Your task to perform on an android device: When is my next appointment? Image 0: 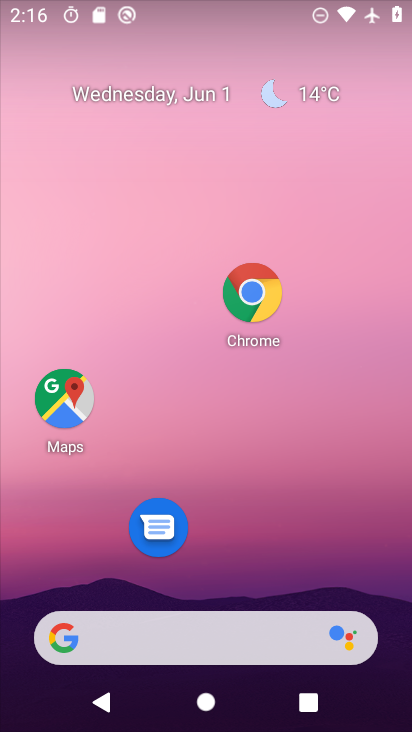
Step 0: drag from (279, 566) to (300, 131)
Your task to perform on an android device: When is my next appointment? Image 1: 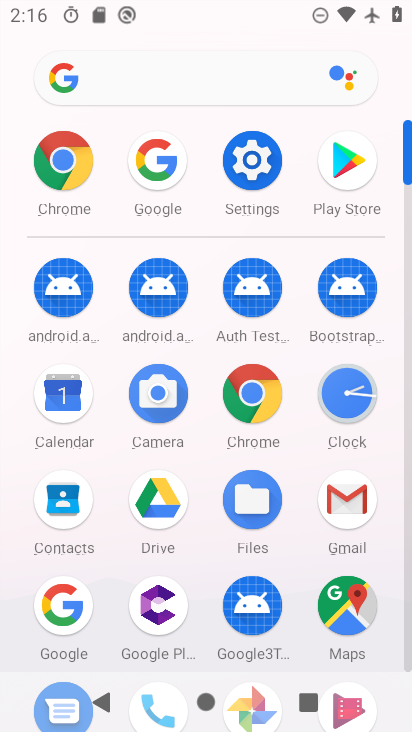
Step 1: click (69, 417)
Your task to perform on an android device: When is my next appointment? Image 2: 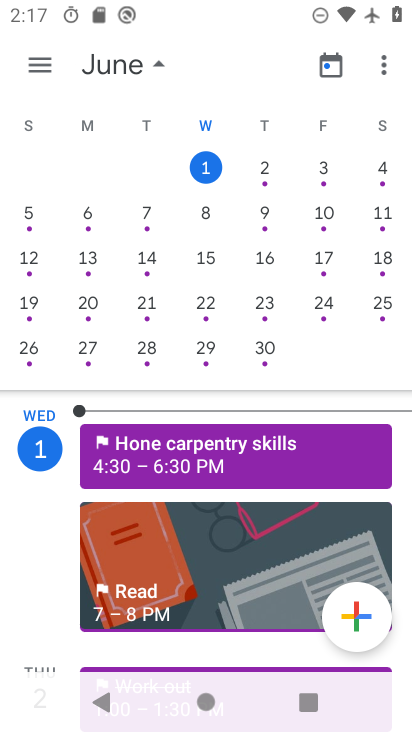
Step 2: task complete